Your task to perform on an android device: Open calendar and show me the first week of next month Image 0: 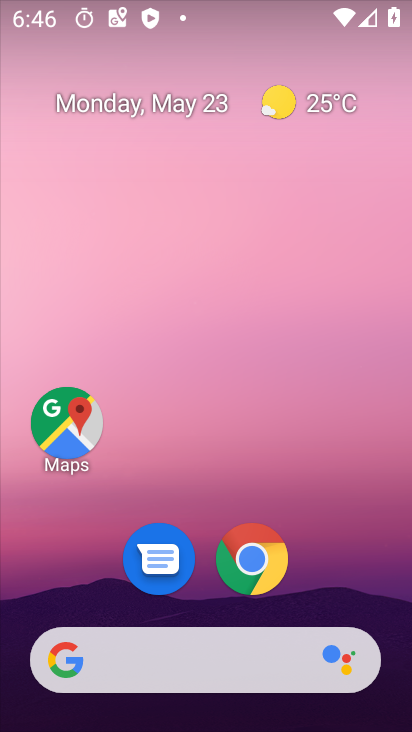
Step 0: drag from (385, 623) to (310, 29)
Your task to perform on an android device: Open calendar and show me the first week of next month Image 1: 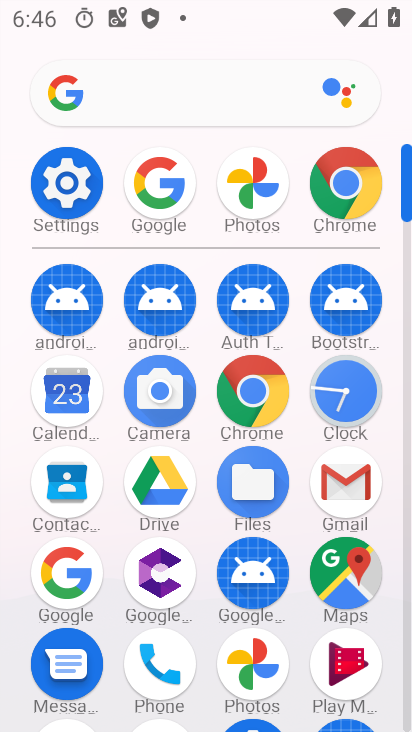
Step 1: click (74, 403)
Your task to perform on an android device: Open calendar and show me the first week of next month Image 2: 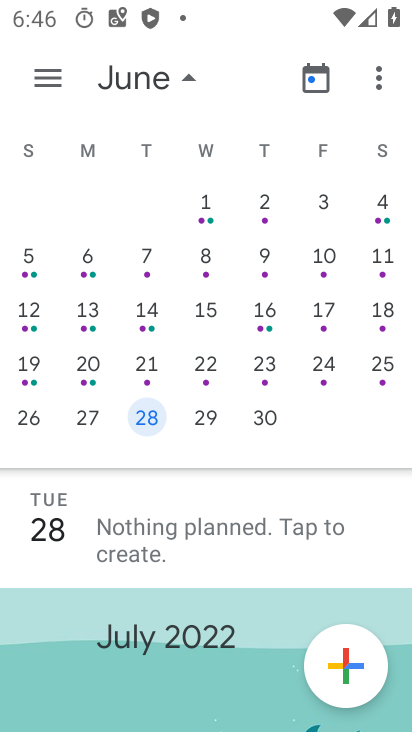
Step 2: drag from (371, 243) to (92, 278)
Your task to perform on an android device: Open calendar and show me the first week of next month Image 3: 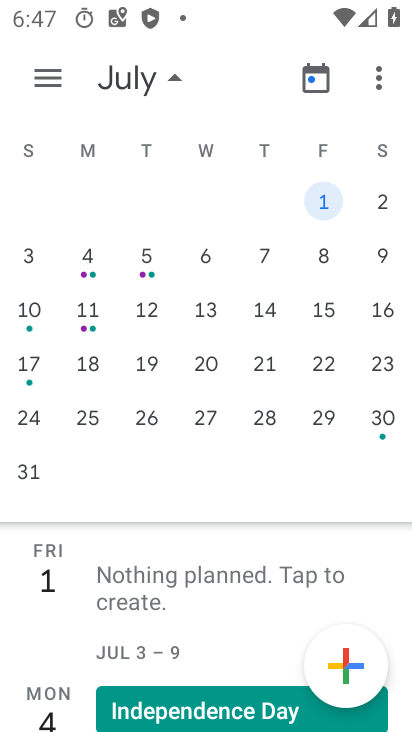
Step 3: click (146, 248)
Your task to perform on an android device: Open calendar and show me the first week of next month Image 4: 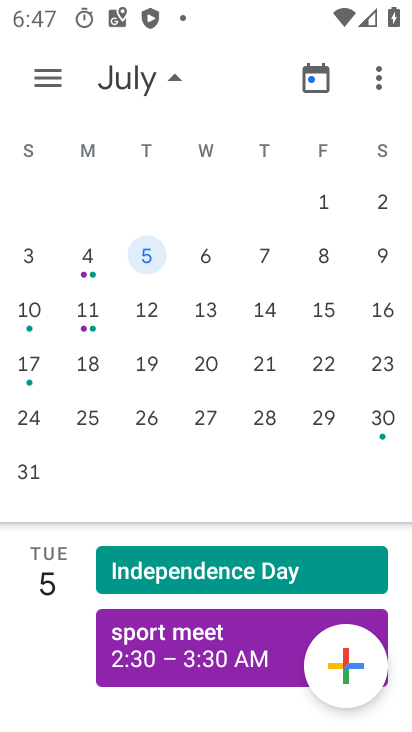
Step 4: task complete